Your task to perform on an android device: set the stopwatch Image 0: 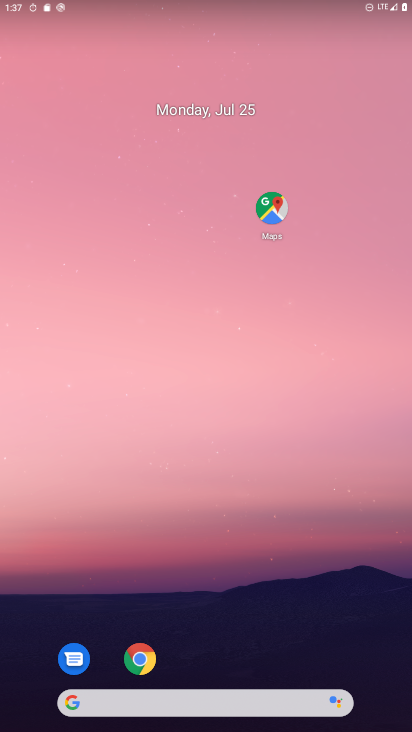
Step 0: drag from (102, 454) to (136, 307)
Your task to perform on an android device: set the stopwatch Image 1: 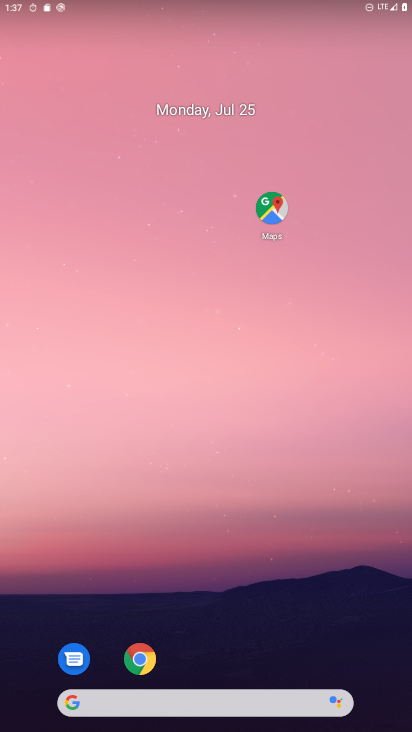
Step 1: drag from (32, 683) to (182, 103)
Your task to perform on an android device: set the stopwatch Image 2: 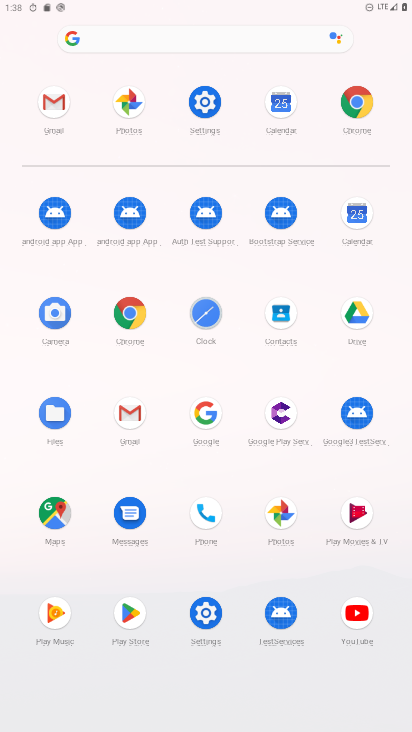
Step 2: click (181, 315)
Your task to perform on an android device: set the stopwatch Image 3: 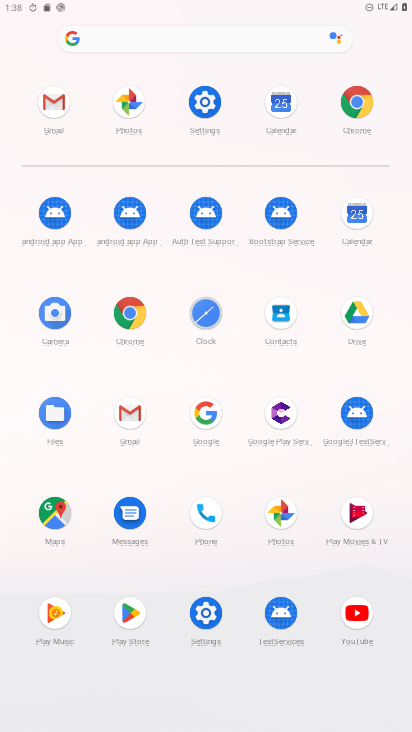
Step 3: click (192, 319)
Your task to perform on an android device: set the stopwatch Image 4: 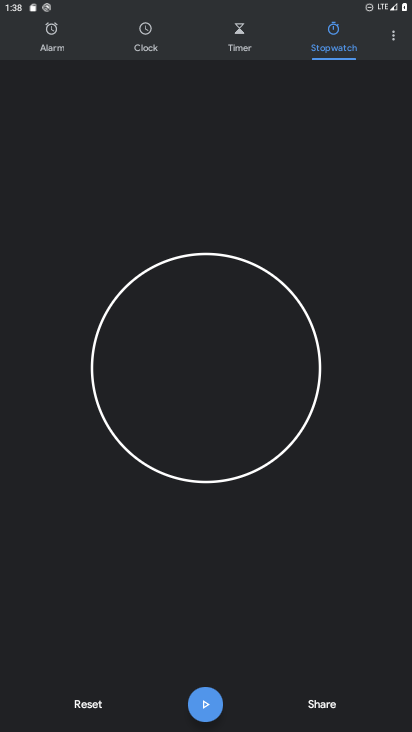
Step 4: click (220, 712)
Your task to perform on an android device: set the stopwatch Image 5: 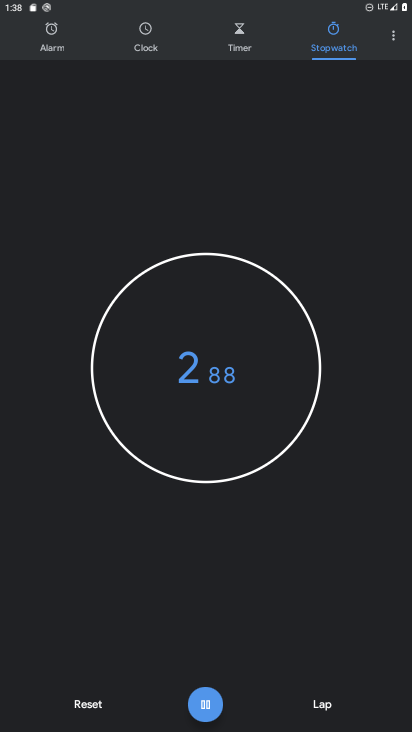
Step 5: click (211, 713)
Your task to perform on an android device: set the stopwatch Image 6: 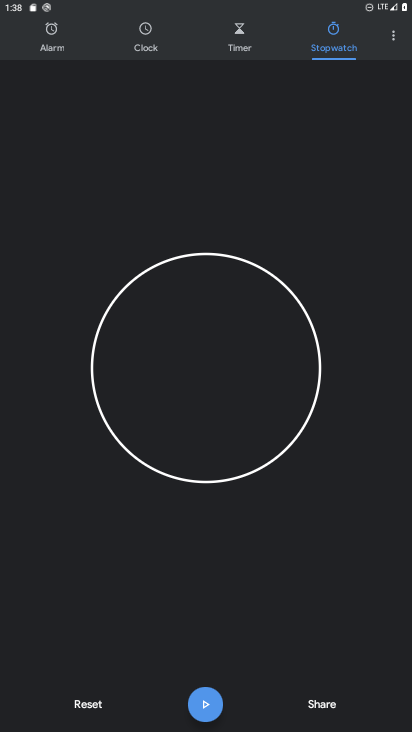
Step 6: task complete